Your task to perform on an android device: turn off javascript in the chrome app Image 0: 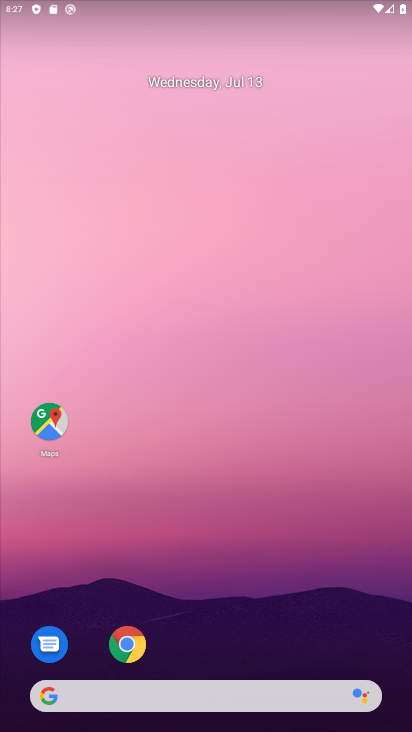
Step 0: drag from (209, 729) to (192, 626)
Your task to perform on an android device: turn off javascript in the chrome app Image 1: 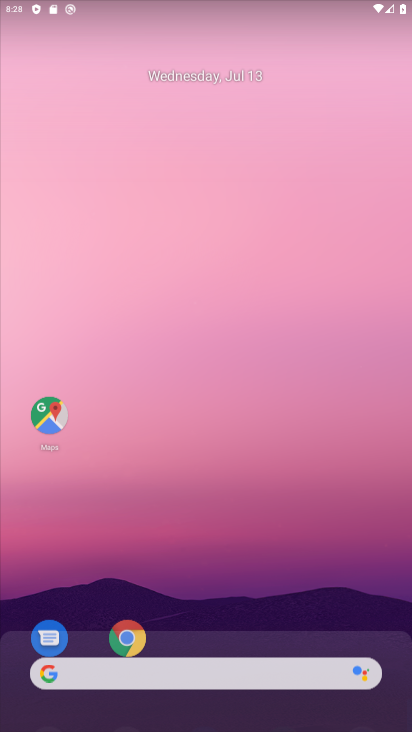
Step 1: drag from (173, 389) to (165, 151)
Your task to perform on an android device: turn off javascript in the chrome app Image 2: 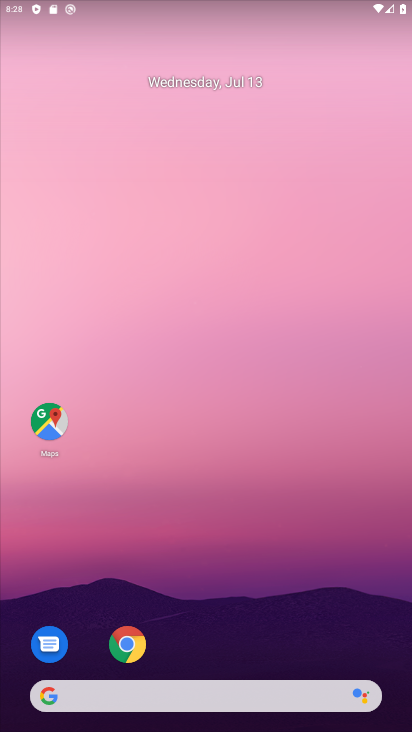
Step 2: click (126, 647)
Your task to perform on an android device: turn off javascript in the chrome app Image 3: 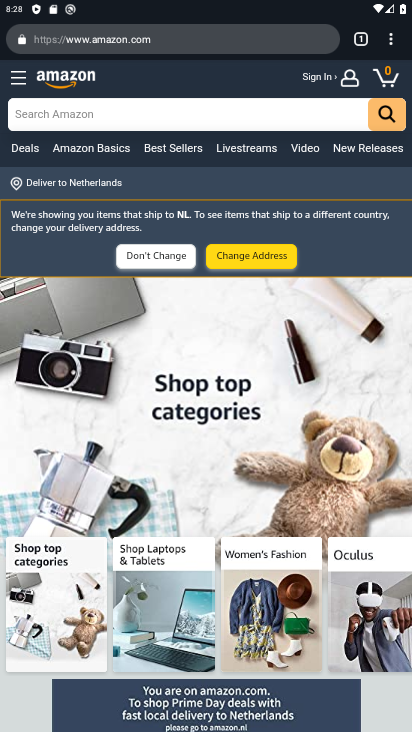
Step 3: click (389, 38)
Your task to perform on an android device: turn off javascript in the chrome app Image 4: 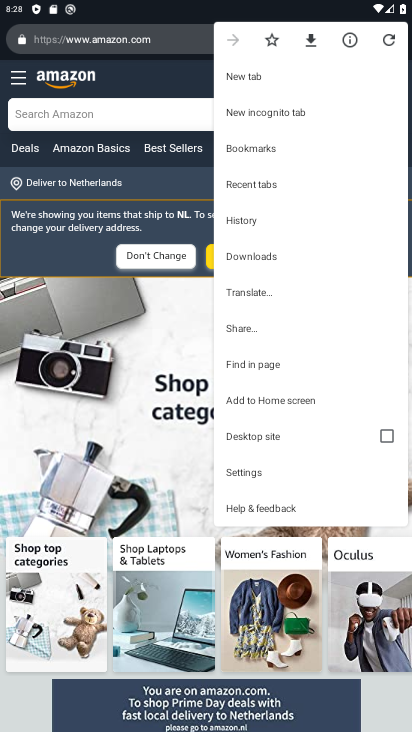
Step 4: click (258, 472)
Your task to perform on an android device: turn off javascript in the chrome app Image 5: 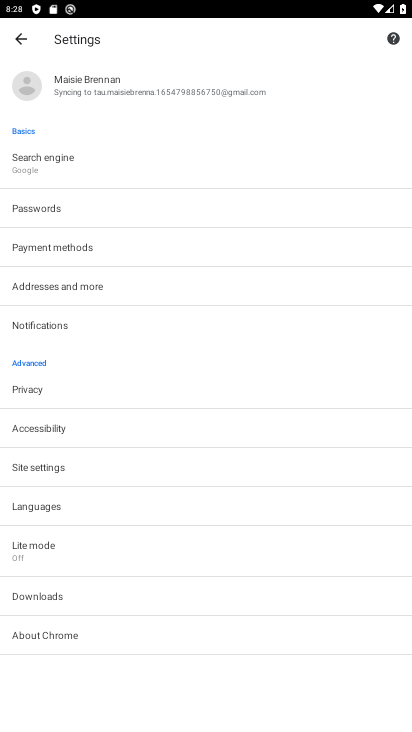
Step 5: click (38, 466)
Your task to perform on an android device: turn off javascript in the chrome app Image 6: 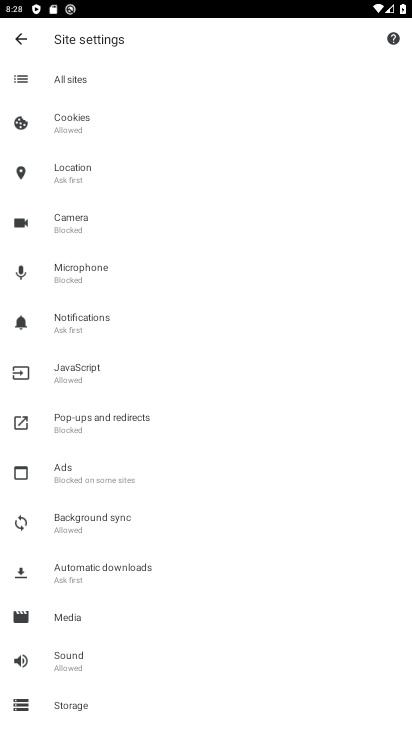
Step 6: click (67, 372)
Your task to perform on an android device: turn off javascript in the chrome app Image 7: 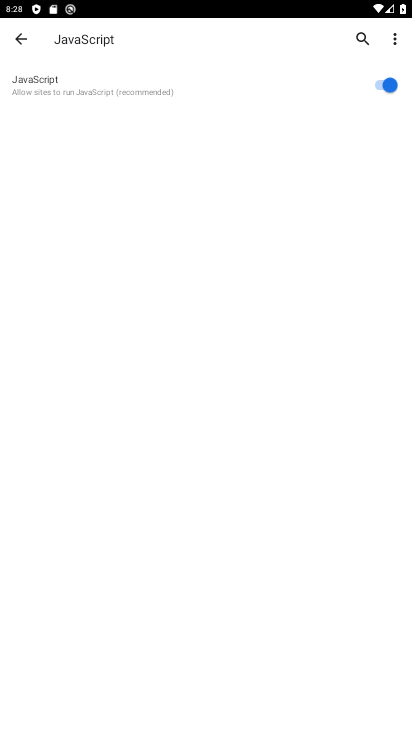
Step 7: click (379, 83)
Your task to perform on an android device: turn off javascript in the chrome app Image 8: 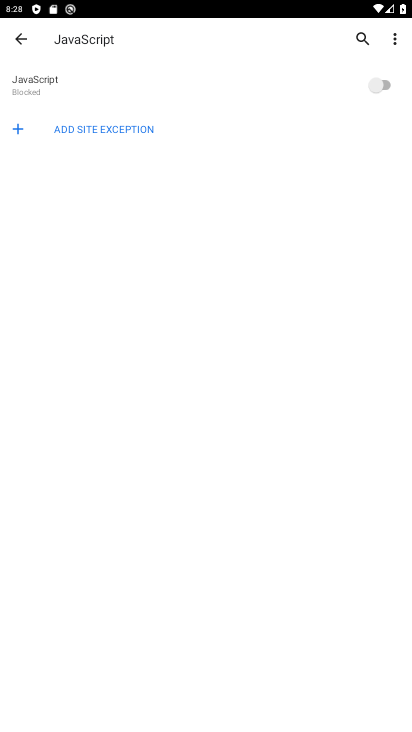
Step 8: task complete